Your task to perform on an android device: turn on showing notifications on the lock screen Image 0: 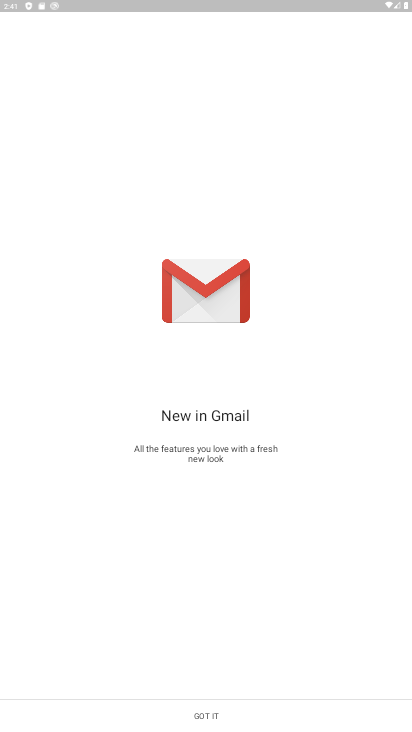
Step 0: click (223, 716)
Your task to perform on an android device: turn on showing notifications on the lock screen Image 1: 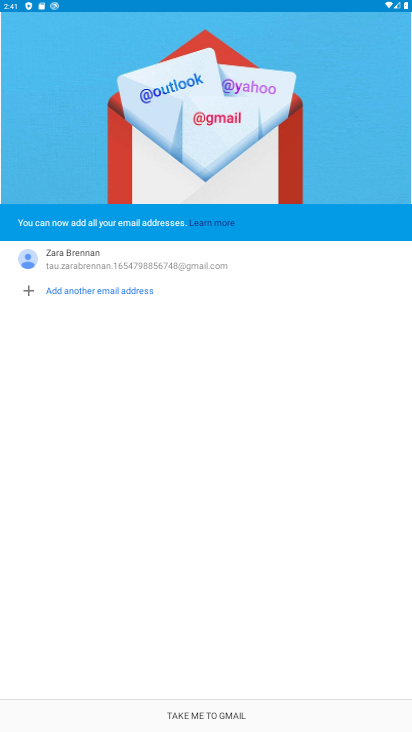
Step 1: press home button
Your task to perform on an android device: turn on showing notifications on the lock screen Image 2: 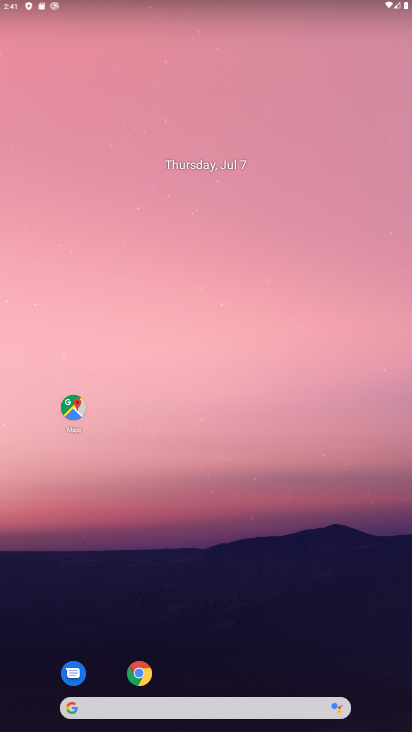
Step 2: drag from (218, 644) to (232, 111)
Your task to perform on an android device: turn on showing notifications on the lock screen Image 3: 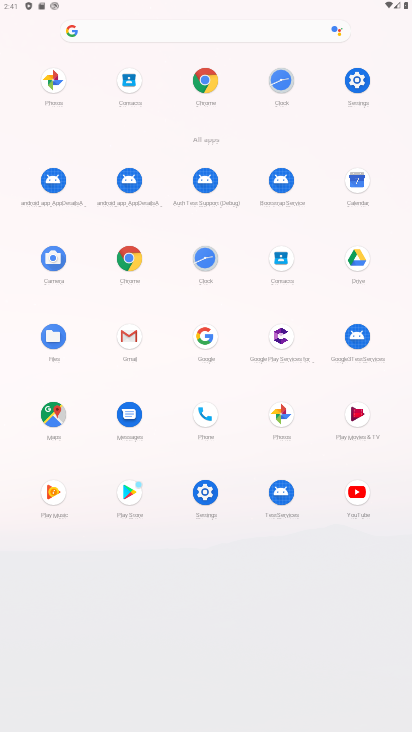
Step 3: click (205, 501)
Your task to perform on an android device: turn on showing notifications on the lock screen Image 4: 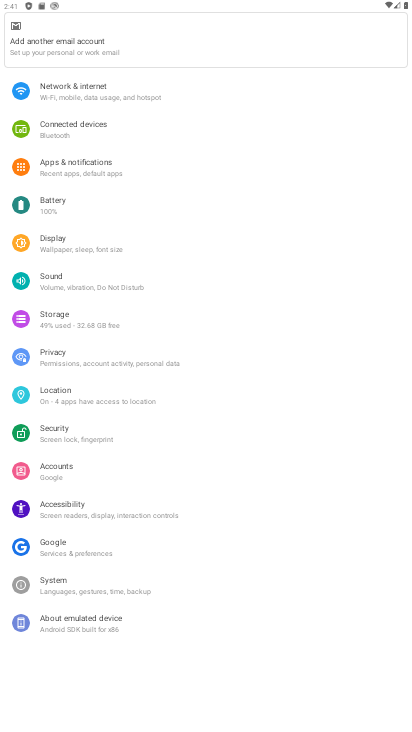
Step 4: click (98, 172)
Your task to perform on an android device: turn on showing notifications on the lock screen Image 5: 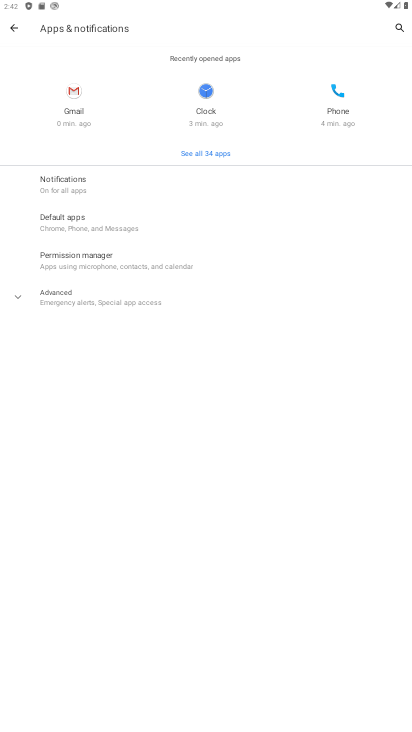
Step 5: click (95, 189)
Your task to perform on an android device: turn on showing notifications on the lock screen Image 6: 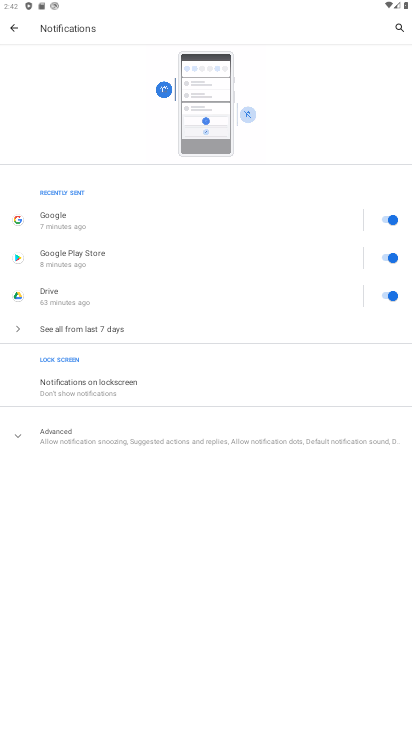
Step 6: click (118, 386)
Your task to perform on an android device: turn on showing notifications on the lock screen Image 7: 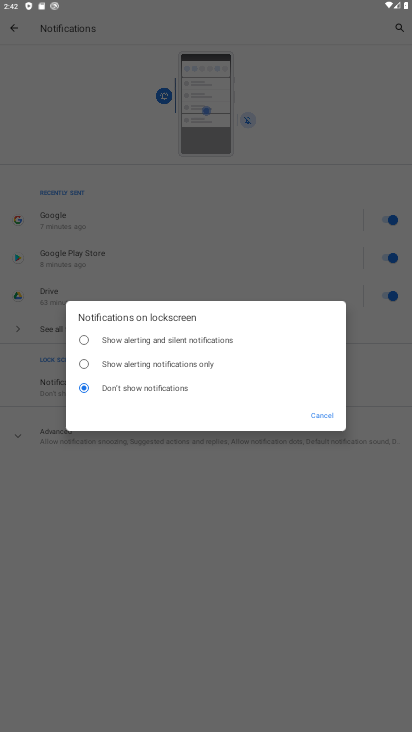
Step 7: click (150, 335)
Your task to perform on an android device: turn on showing notifications on the lock screen Image 8: 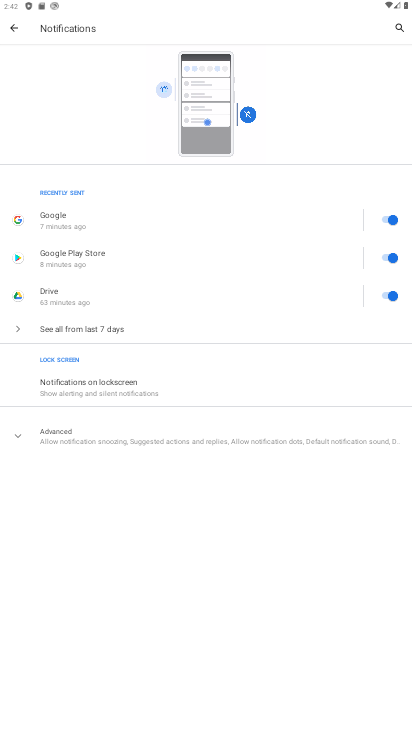
Step 8: task complete